Your task to perform on an android device: What is the recent news? Image 0: 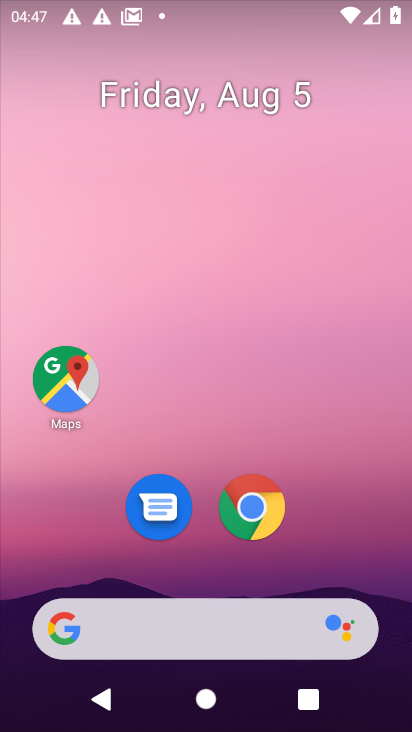
Step 0: drag from (179, 622) to (188, 336)
Your task to perform on an android device: What is the recent news? Image 1: 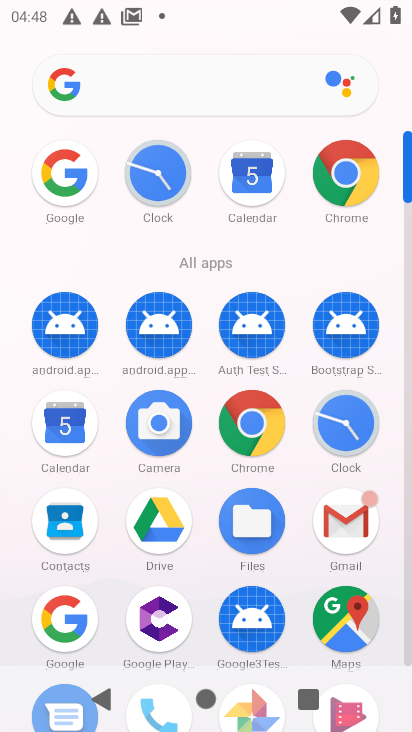
Step 1: click (57, 627)
Your task to perform on an android device: What is the recent news? Image 2: 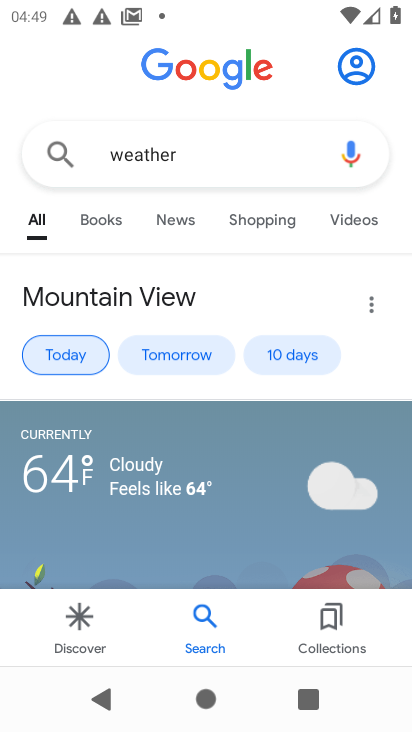
Step 2: click (202, 157)
Your task to perform on an android device: What is the recent news? Image 3: 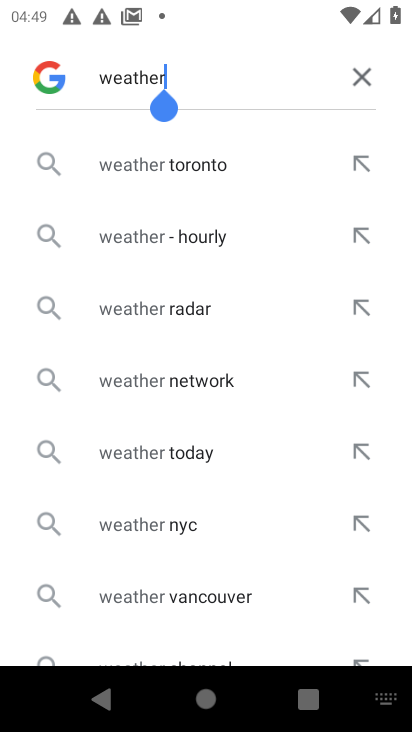
Step 3: click (361, 77)
Your task to perform on an android device: What is the recent news? Image 4: 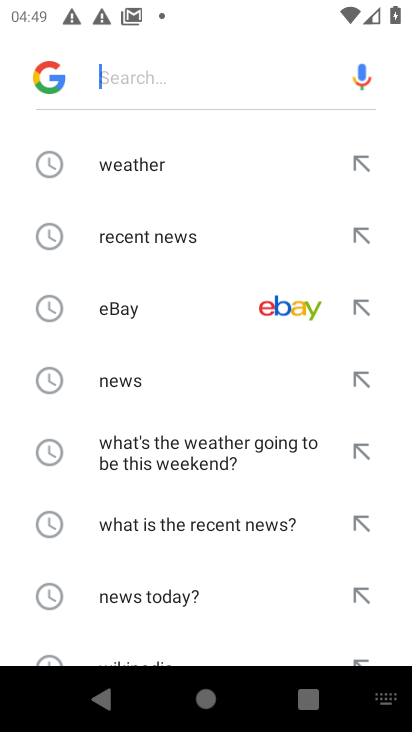
Step 4: click (184, 238)
Your task to perform on an android device: What is the recent news? Image 5: 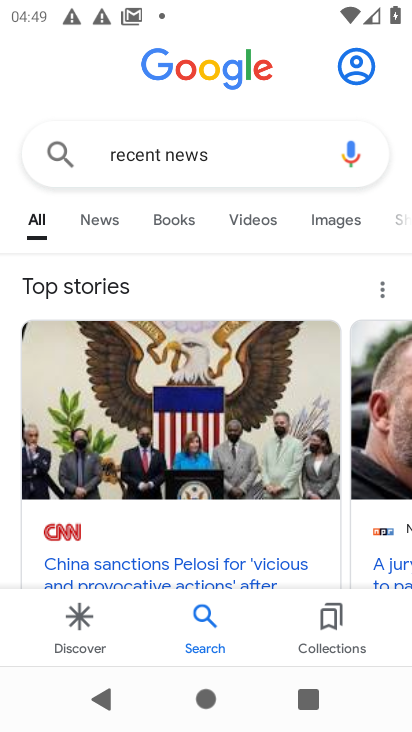
Step 5: task complete